Your task to perform on an android device: toggle wifi Image 0: 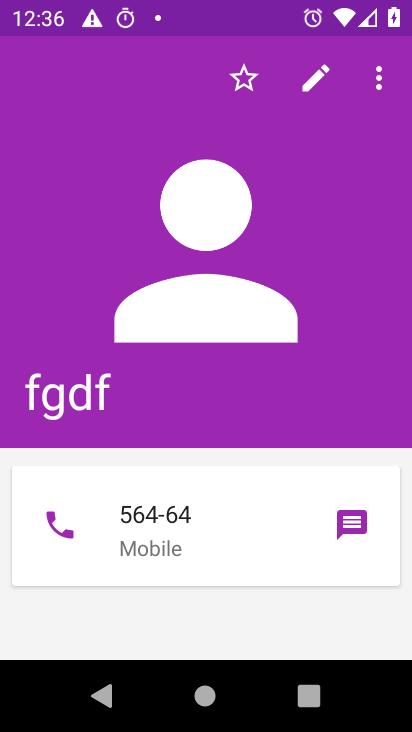
Step 0: press back button
Your task to perform on an android device: toggle wifi Image 1: 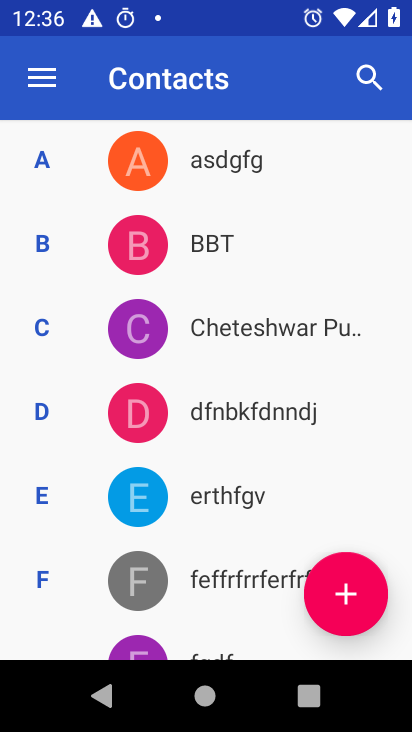
Step 1: press back button
Your task to perform on an android device: toggle wifi Image 2: 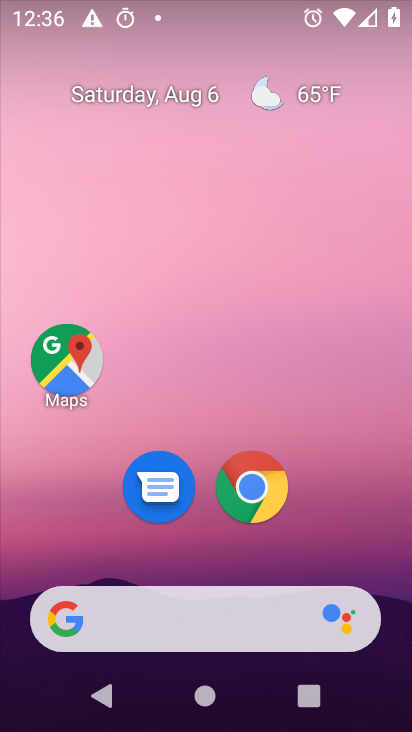
Step 2: drag from (150, 10) to (173, 559)
Your task to perform on an android device: toggle wifi Image 3: 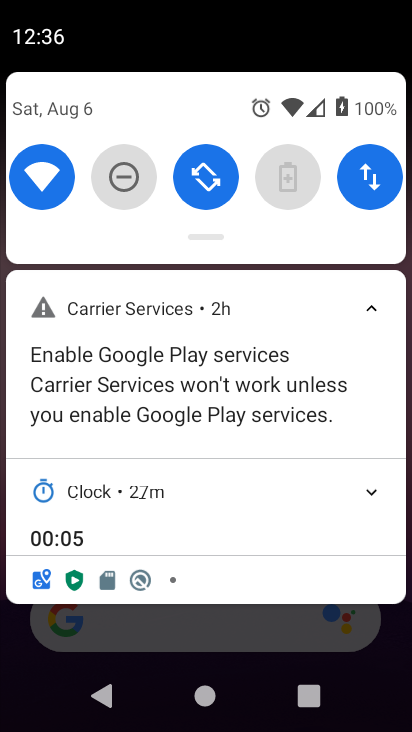
Step 3: click (41, 185)
Your task to perform on an android device: toggle wifi Image 4: 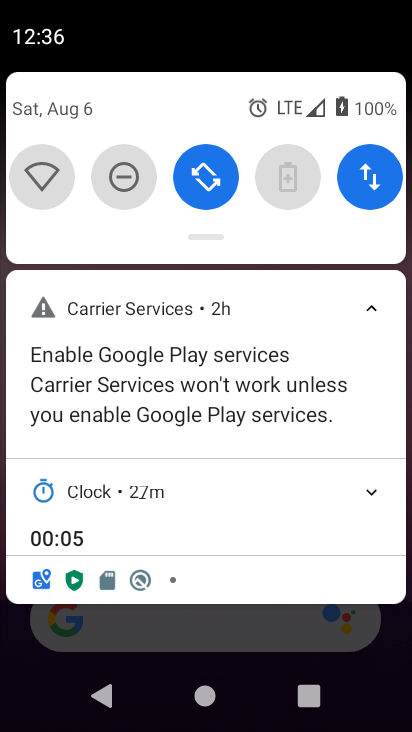
Step 4: task complete